Your task to perform on an android device: find which apps use the phone's location Image 0: 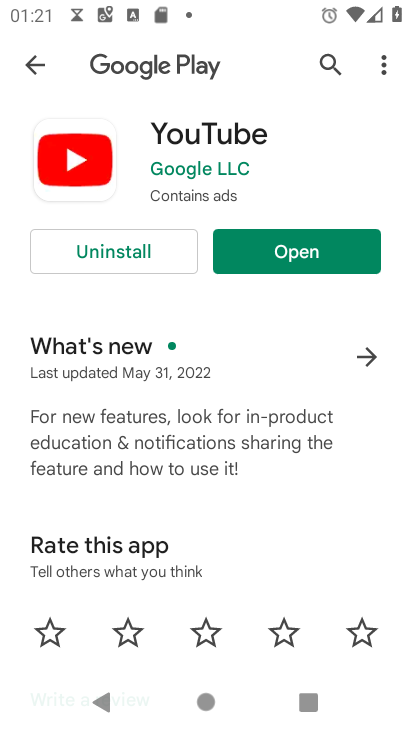
Step 0: press home button
Your task to perform on an android device: find which apps use the phone's location Image 1: 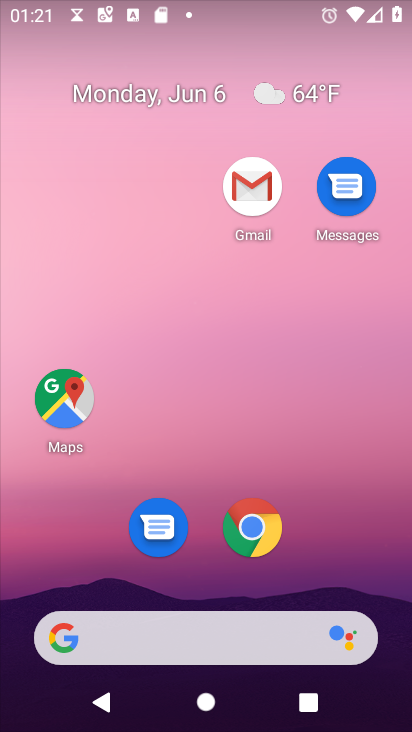
Step 1: drag from (324, 552) to (297, 91)
Your task to perform on an android device: find which apps use the phone's location Image 2: 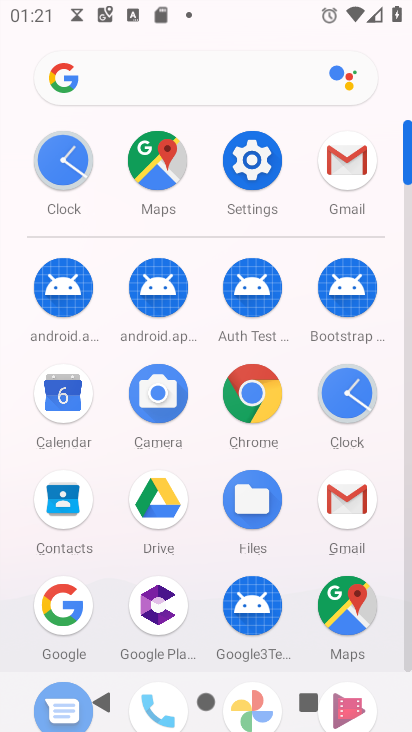
Step 2: click (258, 165)
Your task to perform on an android device: find which apps use the phone's location Image 3: 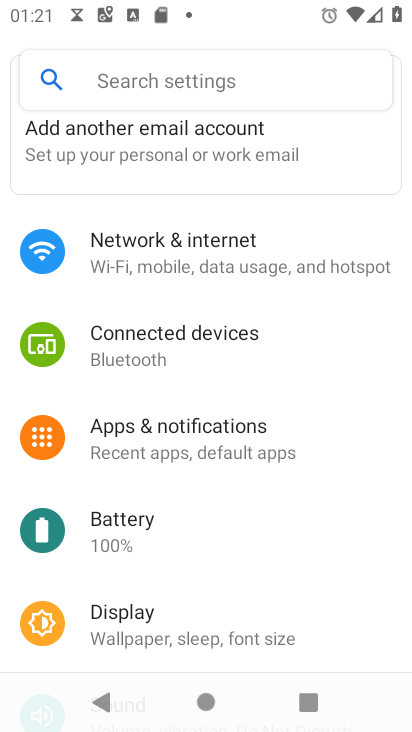
Step 3: drag from (215, 605) to (230, 380)
Your task to perform on an android device: find which apps use the phone's location Image 4: 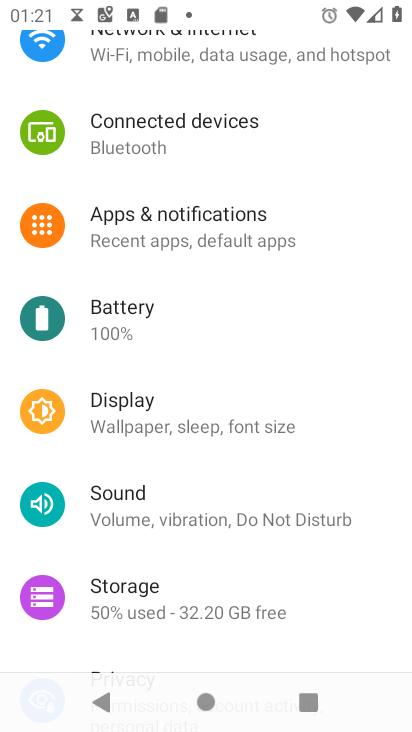
Step 4: drag from (270, 578) to (297, 227)
Your task to perform on an android device: find which apps use the phone's location Image 5: 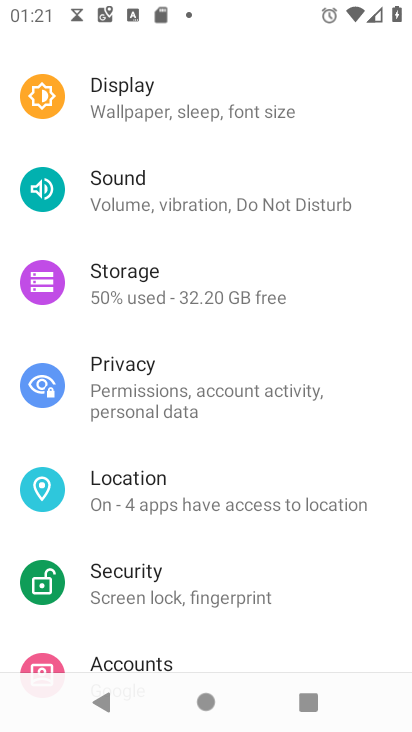
Step 5: click (245, 497)
Your task to perform on an android device: find which apps use the phone's location Image 6: 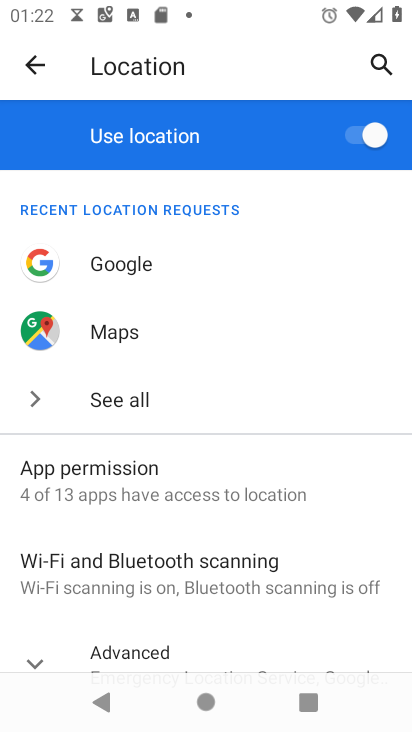
Step 6: click (217, 476)
Your task to perform on an android device: find which apps use the phone's location Image 7: 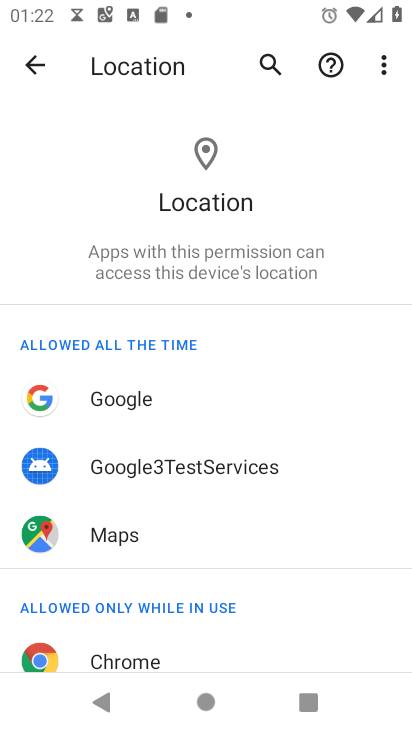
Step 7: task complete